Your task to perform on an android device: delete a single message in the gmail app Image 0: 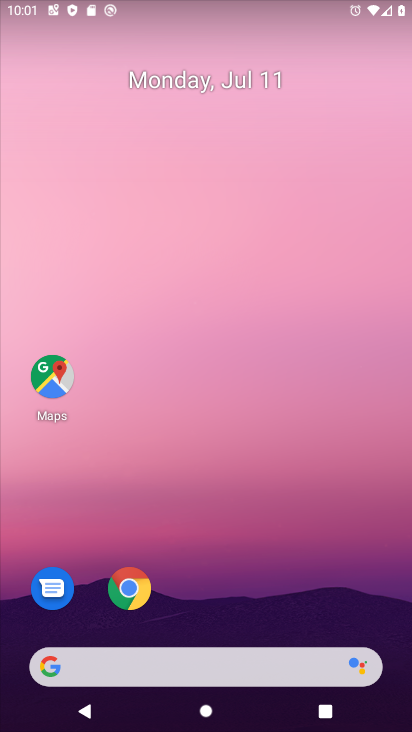
Step 0: drag from (248, 580) to (210, 0)
Your task to perform on an android device: delete a single message in the gmail app Image 1: 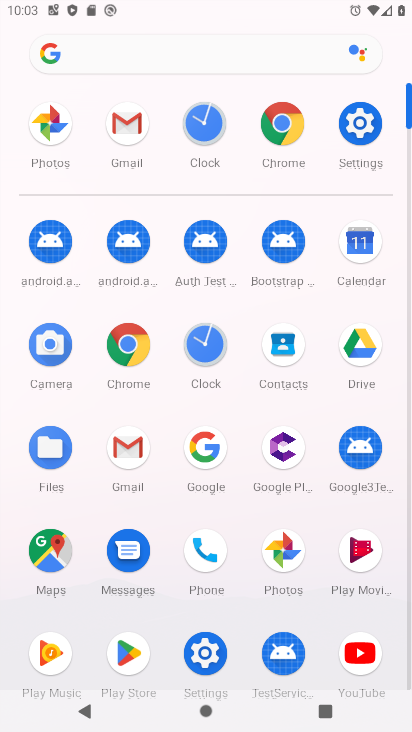
Step 1: click (124, 118)
Your task to perform on an android device: delete a single message in the gmail app Image 2: 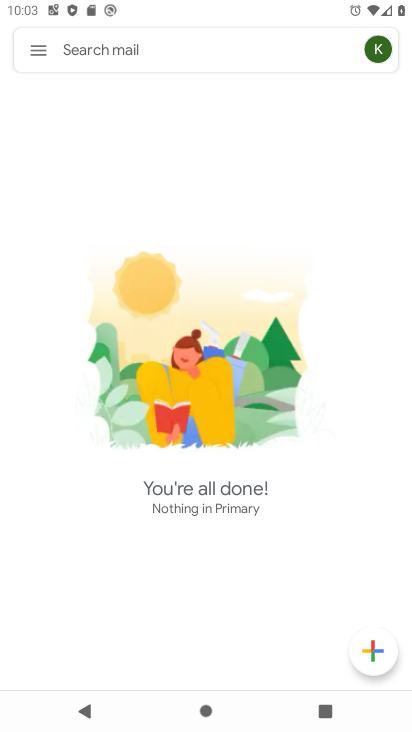
Step 2: click (44, 48)
Your task to perform on an android device: delete a single message in the gmail app Image 3: 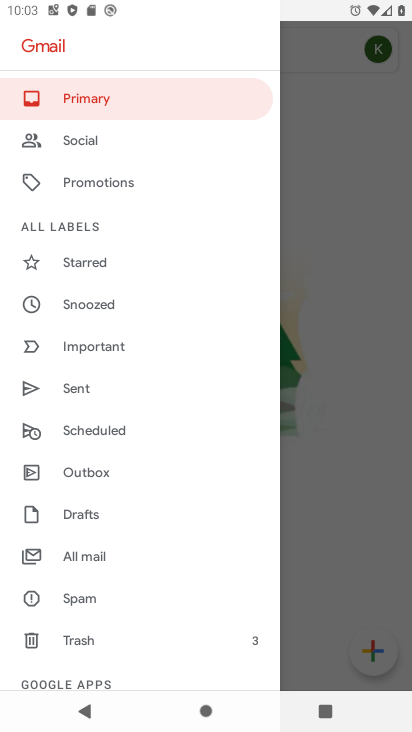
Step 3: click (97, 556)
Your task to perform on an android device: delete a single message in the gmail app Image 4: 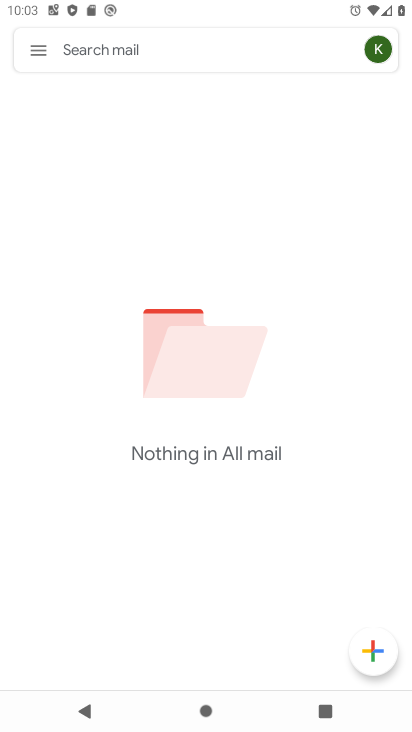
Step 4: task complete